Your task to perform on an android device: Search for the best selling books Image 0: 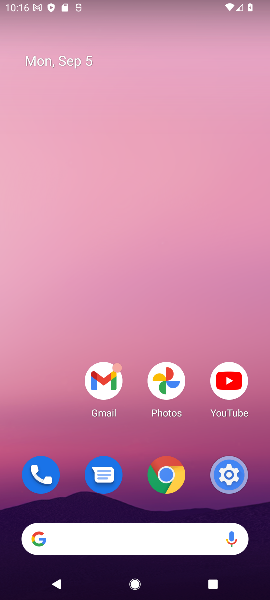
Step 0: click (105, 527)
Your task to perform on an android device: Search for the best selling books Image 1: 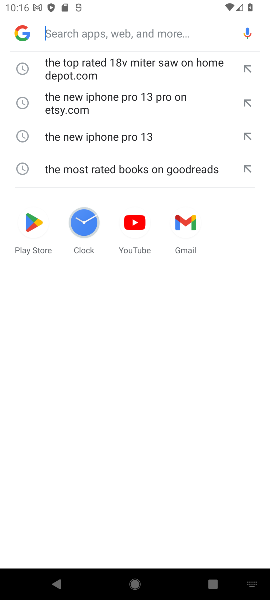
Step 1: type "the best selling books"
Your task to perform on an android device: Search for the best selling books Image 2: 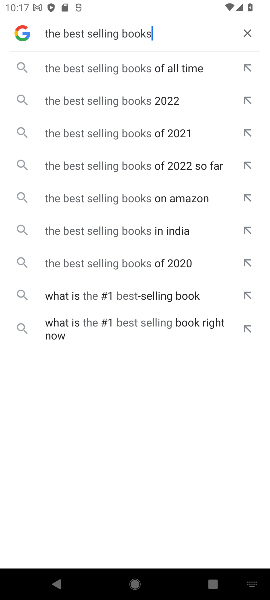
Step 2: click (151, 68)
Your task to perform on an android device: Search for the best selling books Image 3: 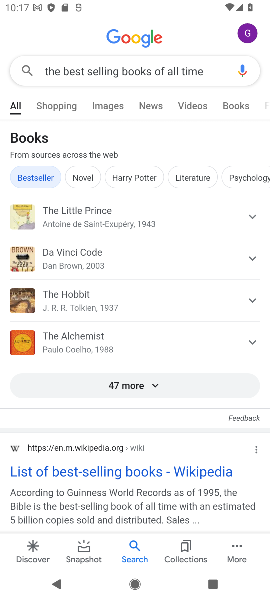
Step 3: drag from (134, 422) to (156, 217)
Your task to perform on an android device: Search for the best selling books Image 4: 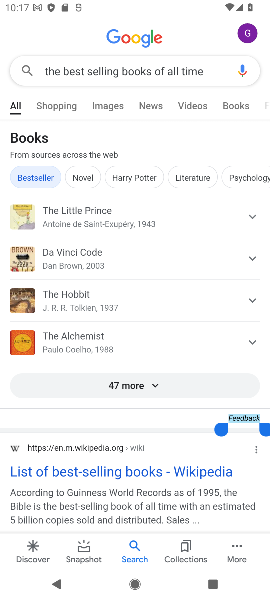
Step 4: click (180, 213)
Your task to perform on an android device: Search for the best selling books Image 5: 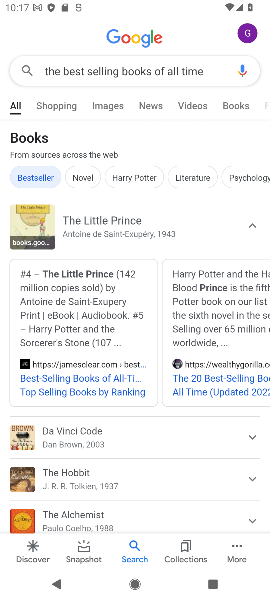
Step 5: task complete